Your task to perform on an android device: turn on translation in the chrome app Image 0: 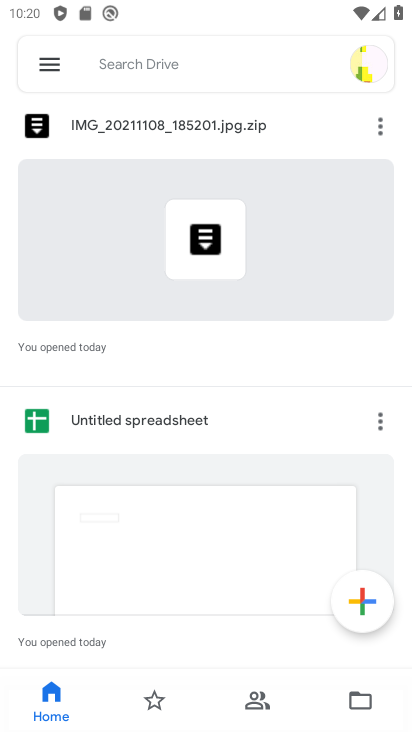
Step 0: press home button
Your task to perform on an android device: turn on translation in the chrome app Image 1: 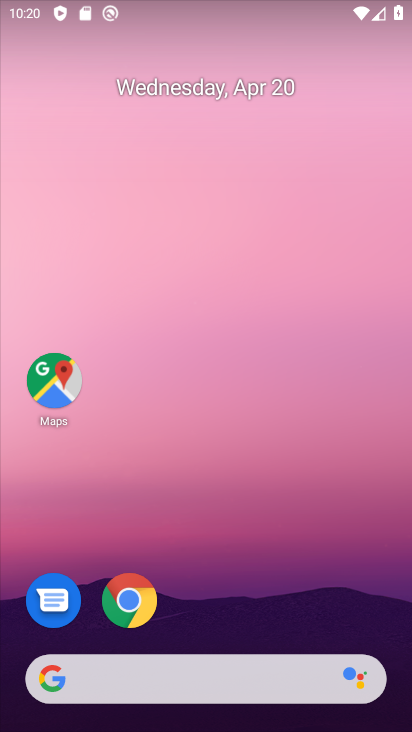
Step 1: click (127, 602)
Your task to perform on an android device: turn on translation in the chrome app Image 2: 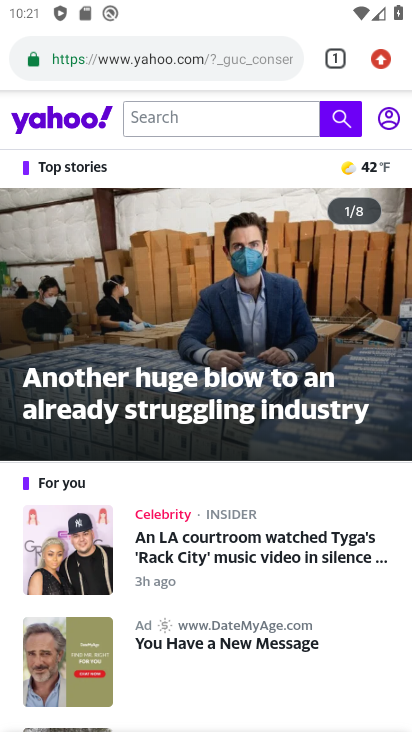
Step 2: click (380, 59)
Your task to perform on an android device: turn on translation in the chrome app Image 3: 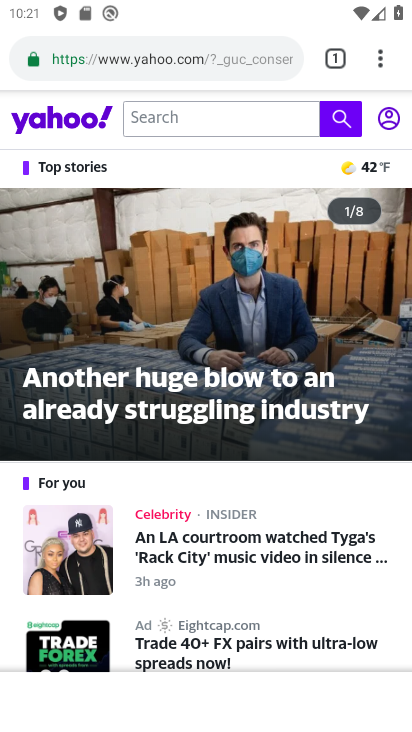
Step 3: click (380, 59)
Your task to perform on an android device: turn on translation in the chrome app Image 4: 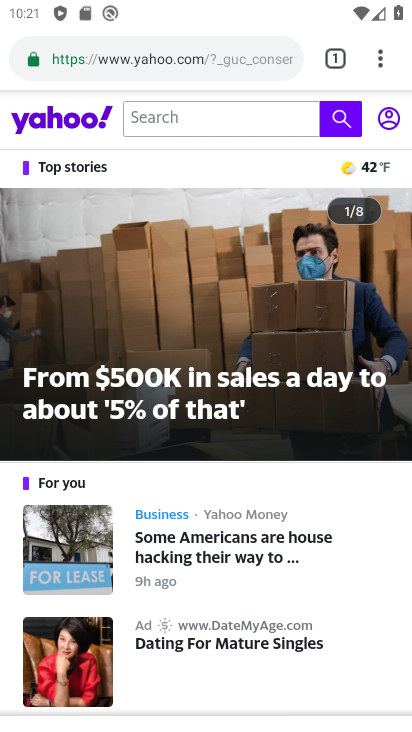
Step 4: click (380, 59)
Your task to perform on an android device: turn on translation in the chrome app Image 5: 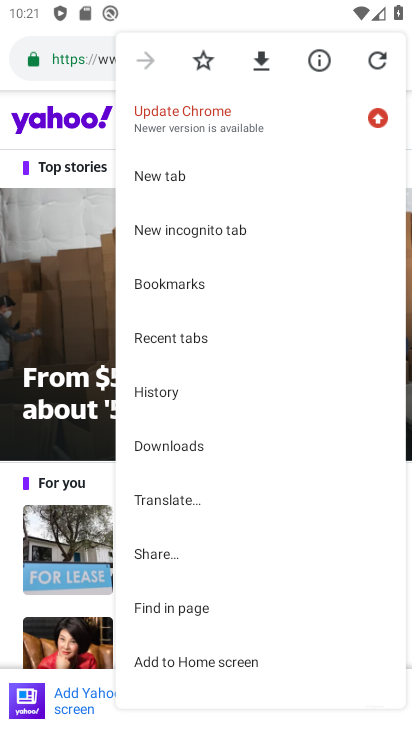
Step 5: drag from (269, 593) to (289, 281)
Your task to perform on an android device: turn on translation in the chrome app Image 6: 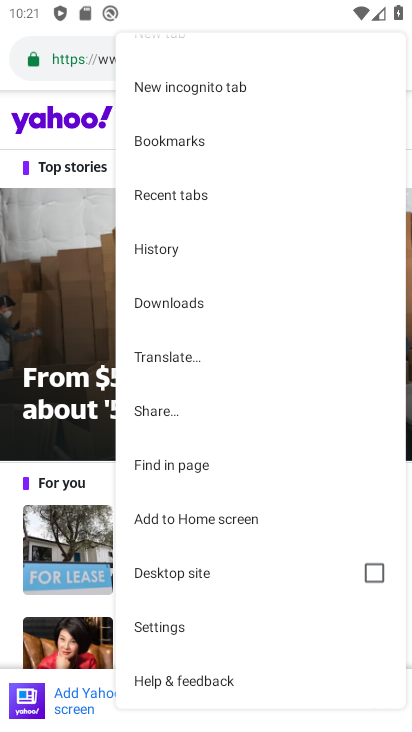
Step 6: click (182, 620)
Your task to perform on an android device: turn on translation in the chrome app Image 7: 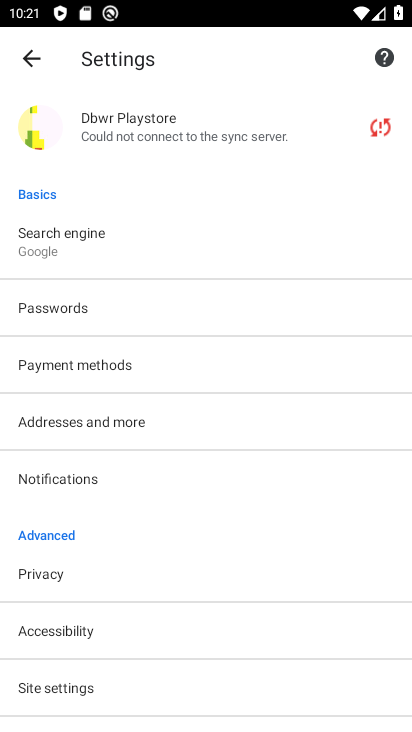
Step 7: drag from (253, 548) to (265, 263)
Your task to perform on an android device: turn on translation in the chrome app Image 8: 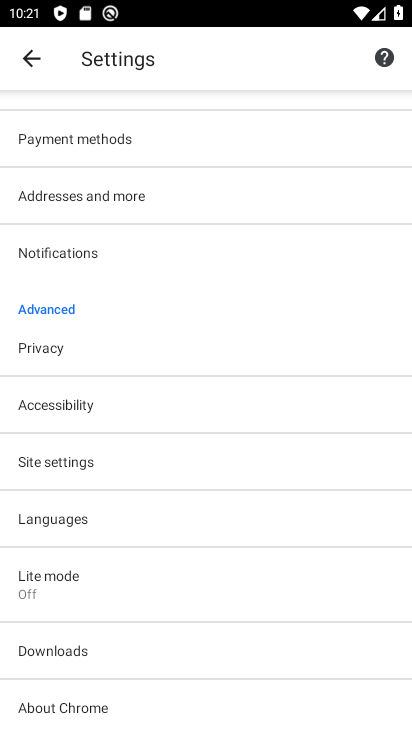
Step 8: click (212, 519)
Your task to perform on an android device: turn on translation in the chrome app Image 9: 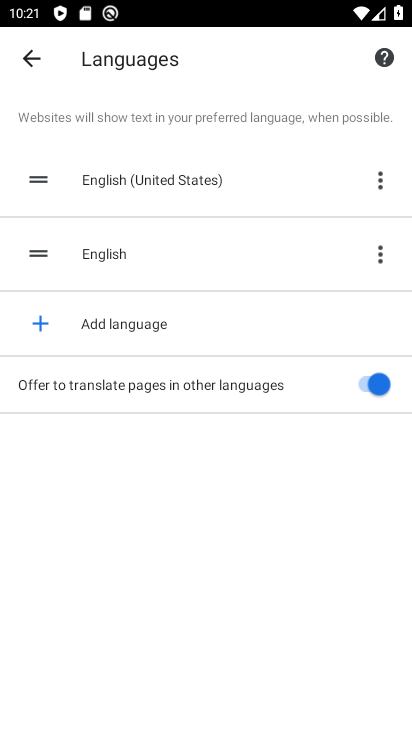
Step 9: task complete